Your task to perform on an android device: Open the calendar app, open the side menu, and click the "Day" option Image 0: 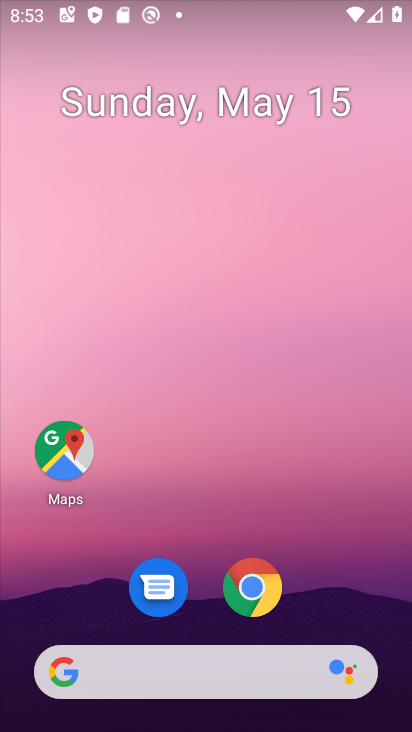
Step 0: drag from (356, 637) to (176, 104)
Your task to perform on an android device: Open the calendar app, open the side menu, and click the "Day" option Image 1: 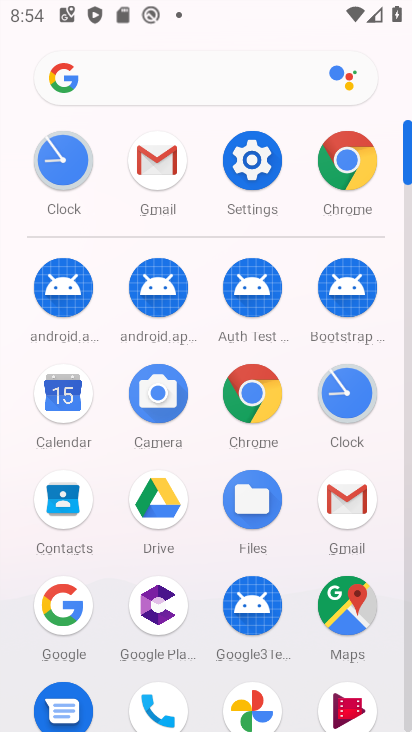
Step 1: click (63, 404)
Your task to perform on an android device: Open the calendar app, open the side menu, and click the "Day" option Image 2: 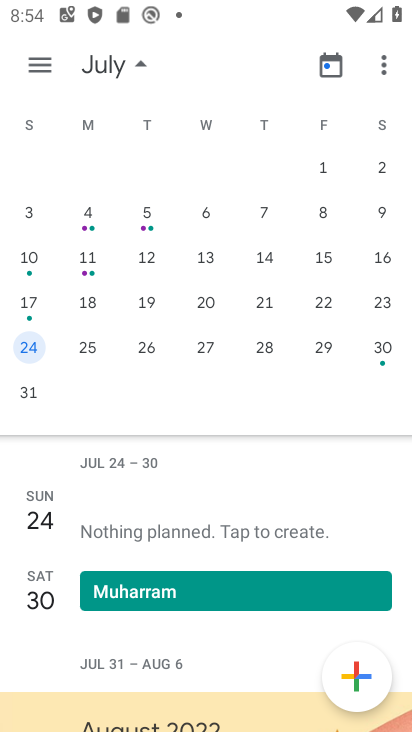
Step 2: click (41, 53)
Your task to perform on an android device: Open the calendar app, open the side menu, and click the "Day" option Image 3: 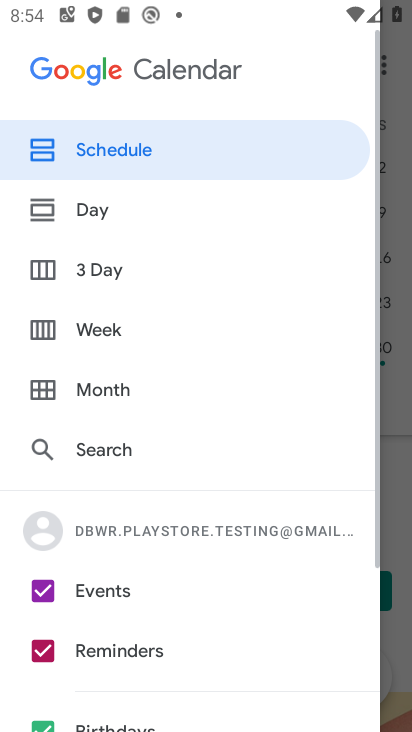
Step 3: click (75, 209)
Your task to perform on an android device: Open the calendar app, open the side menu, and click the "Day" option Image 4: 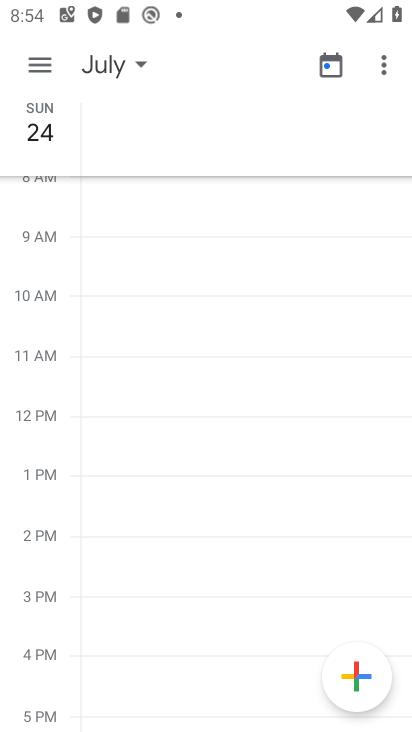
Step 4: task complete